Your task to perform on an android device: View the shopping cart on target. Image 0: 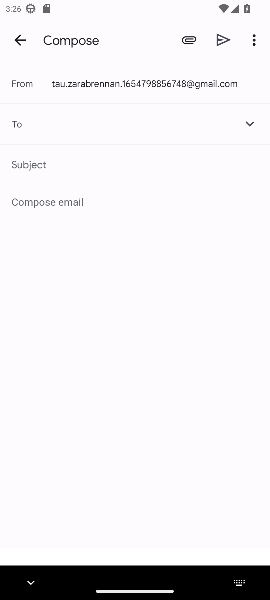
Step 0: press home button
Your task to perform on an android device: View the shopping cart on target. Image 1: 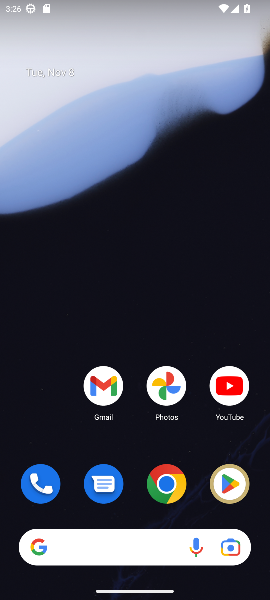
Step 1: click (176, 475)
Your task to perform on an android device: View the shopping cart on target. Image 2: 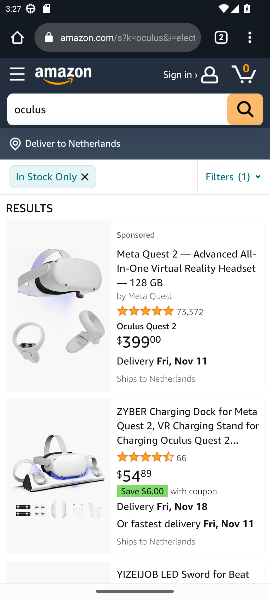
Step 2: click (119, 38)
Your task to perform on an android device: View the shopping cart on target. Image 3: 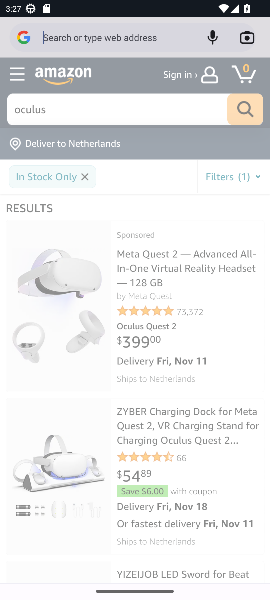
Step 3: click (119, 38)
Your task to perform on an android device: View the shopping cart on target. Image 4: 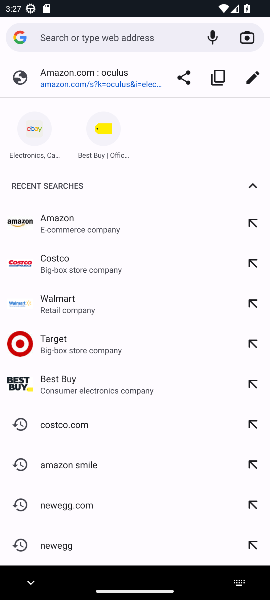
Step 4: click (26, 334)
Your task to perform on an android device: View the shopping cart on target. Image 5: 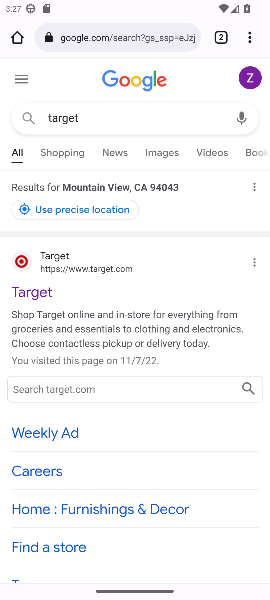
Step 5: click (32, 293)
Your task to perform on an android device: View the shopping cart on target. Image 6: 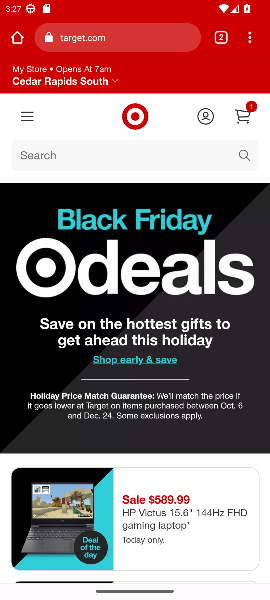
Step 6: click (240, 126)
Your task to perform on an android device: View the shopping cart on target. Image 7: 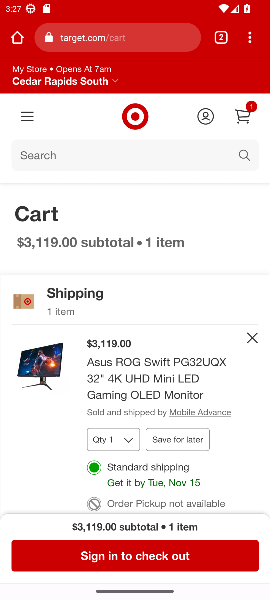
Step 7: task complete